Your task to perform on an android device: change your default location settings in chrome Image 0: 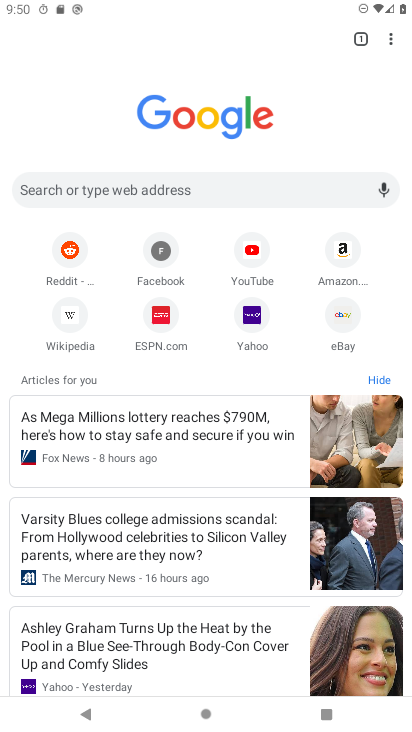
Step 0: drag from (194, 628) to (194, 51)
Your task to perform on an android device: change your default location settings in chrome Image 1: 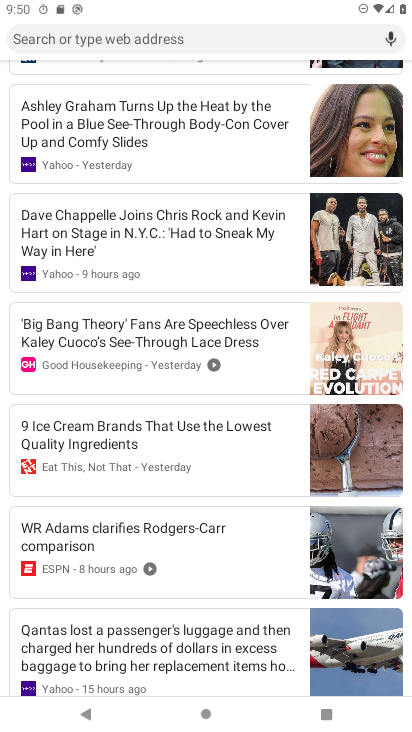
Step 1: drag from (247, 267) to (332, 704)
Your task to perform on an android device: change your default location settings in chrome Image 2: 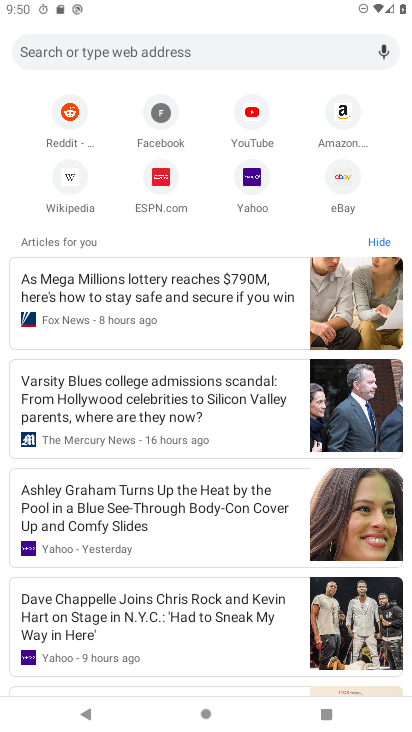
Step 2: drag from (333, 201) to (332, 467)
Your task to perform on an android device: change your default location settings in chrome Image 3: 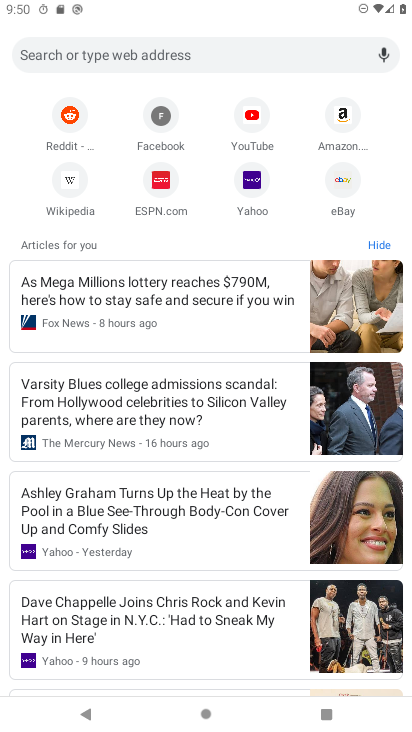
Step 3: drag from (195, 145) to (276, 596)
Your task to perform on an android device: change your default location settings in chrome Image 4: 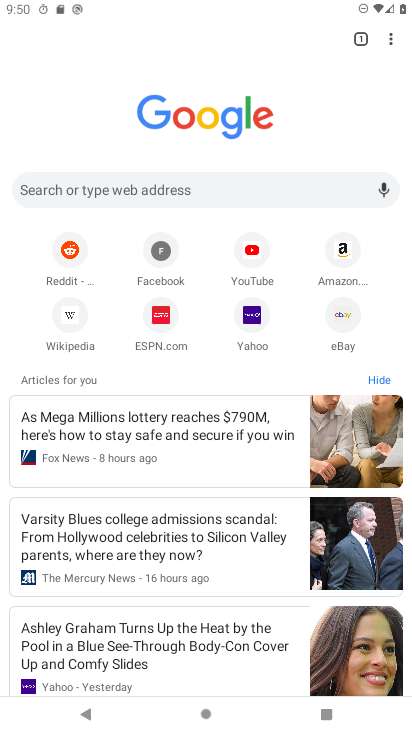
Step 4: drag from (388, 43) to (294, 332)
Your task to perform on an android device: change your default location settings in chrome Image 5: 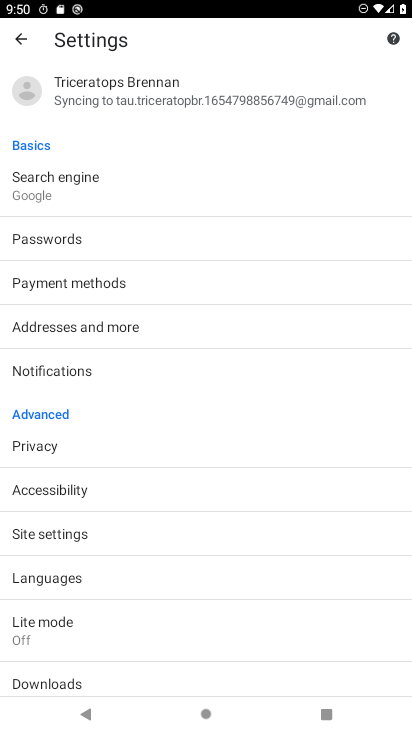
Step 5: click (66, 548)
Your task to perform on an android device: change your default location settings in chrome Image 6: 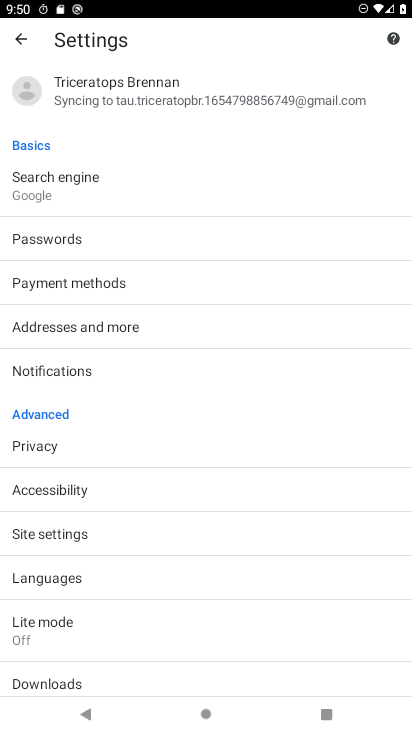
Step 6: click (66, 548)
Your task to perform on an android device: change your default location settings in chrome Image 7: 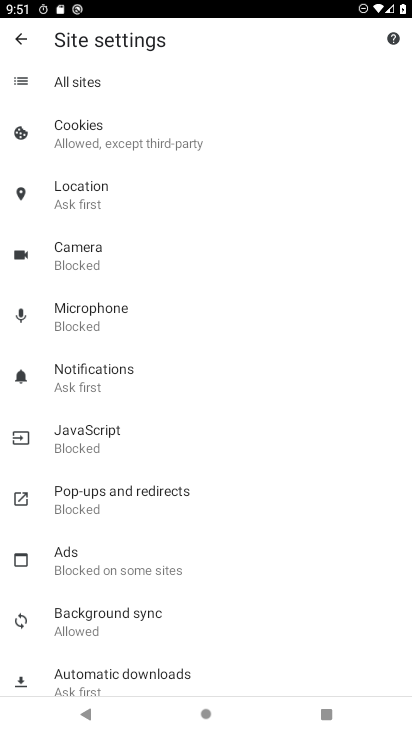
Step 7: click (117, 203)
Your task to perform on an android device: change your default location settings in chrome Image 8: 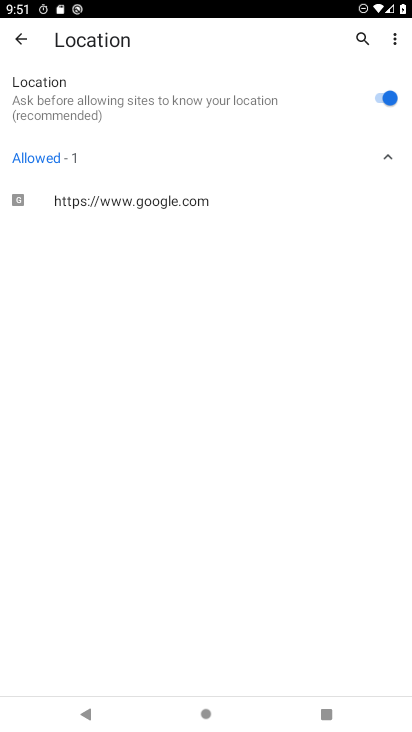
Step 8: drag from (128, 538) to (146, 301)
Your task to perform on an android device: change your default location settings in chrome Image 9: 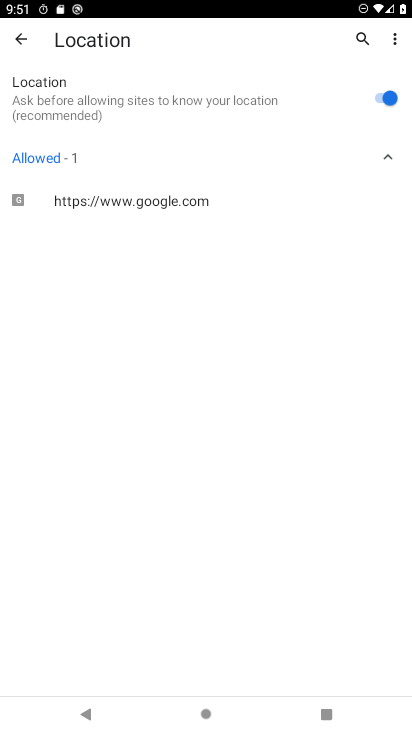
Step 9: click (385, 101)
Your task to perform on an android device: change your default location settings in chrome Image 10: 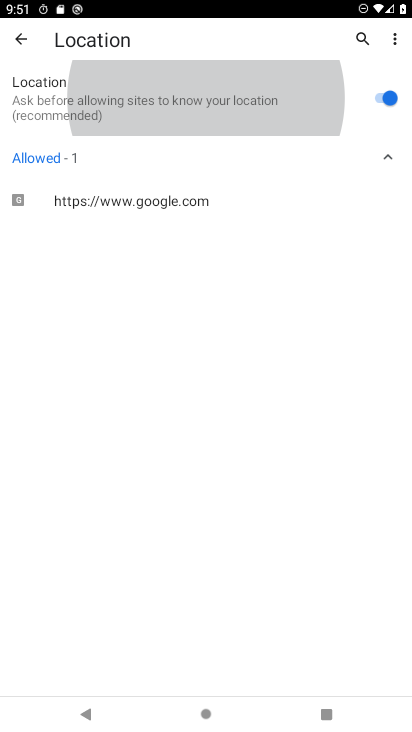
Step 10: task complete